Your task to perform on an android device: open app "Messenger Lite" Image 0: 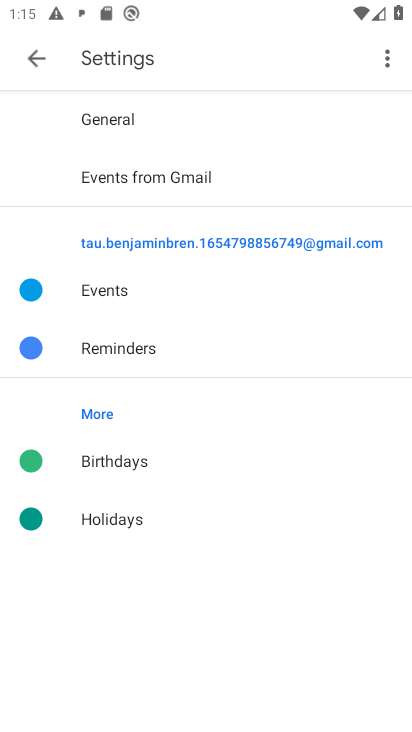
Step 0: press home button
Your task to perform on an android device: open app "Messenger Lite" Image 1: 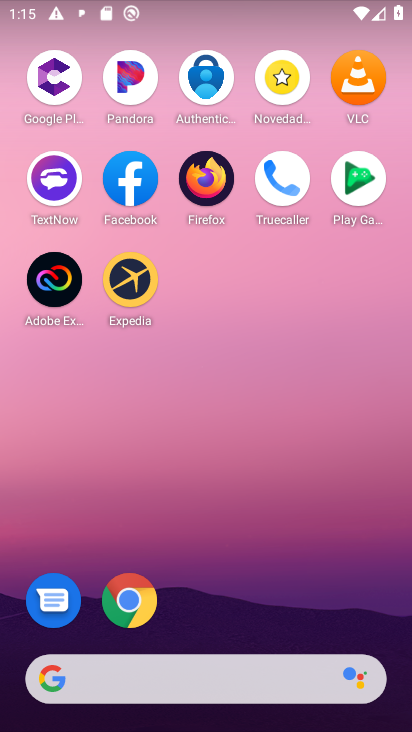
Step 1: drag from (169, 504) to (169, 101)
Your task to perform on an android device: open app "Messenger Lite" Image 2: 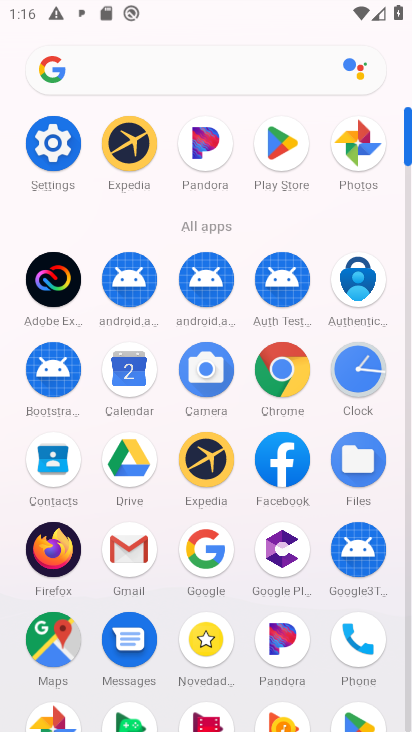
Step 2: click (285, 149)
Your task to perform on an android device: open app "Messenger Lite" Image 3: 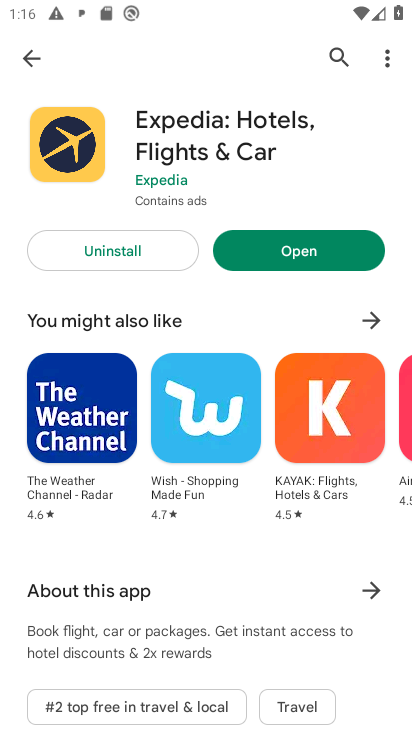
Step 3: click (336, 53)
Your task to perform on an android device: open app "Messenger Lite" Image 4: 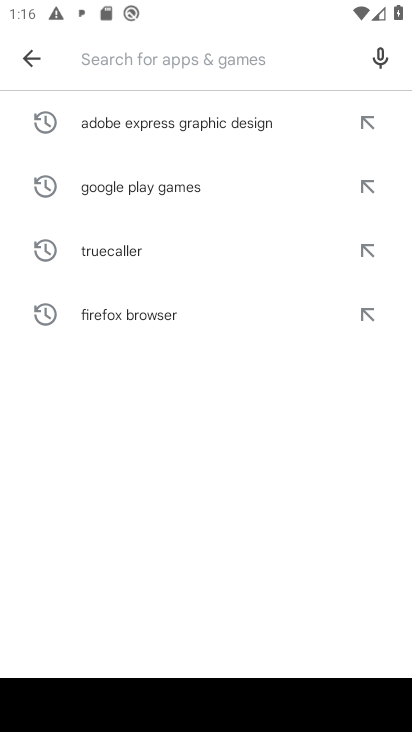
Step 4: type "Messenger Lite"
Your task to perform on an android device: open app "Messenger Lite" Image 5: 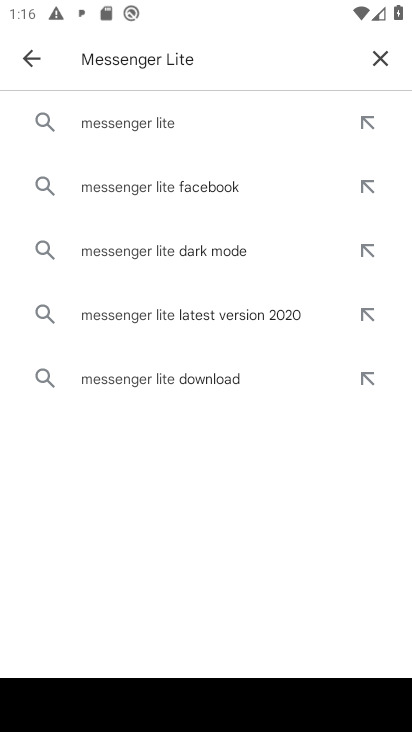
Step 5: click (140, 125)
Your task to perform on an android device: open app "Messenger Lite" Image 6: 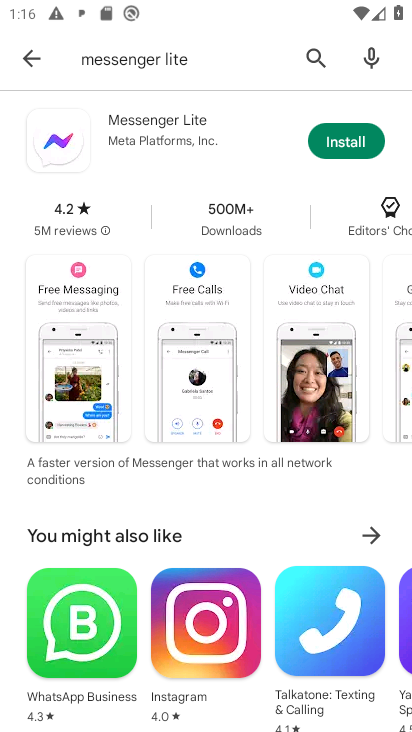
Step 6: click (324, 143)
Your task to perform on an android device: open app "Messenger Lite" Image 7: 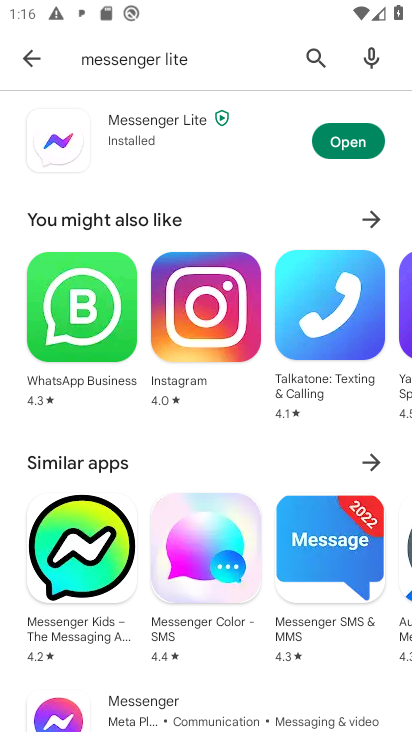
Step 7: click (350, 136)
Your task to perform on an android device: open app "Messenger Lite" Image 8: 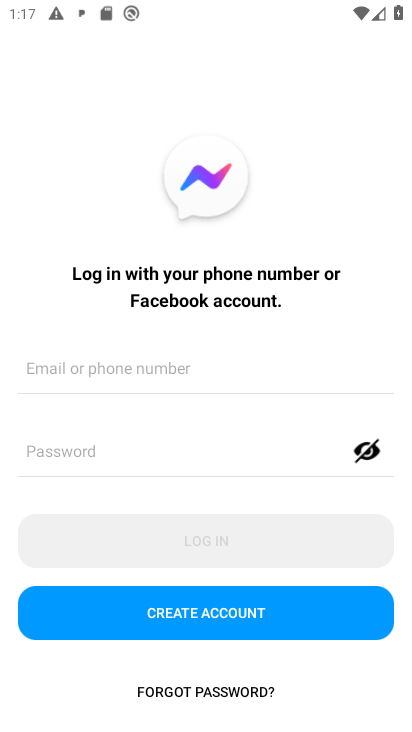
Step 8: task complete